Your task to perform on an android device: turn off translation in the chrome app Image 0: 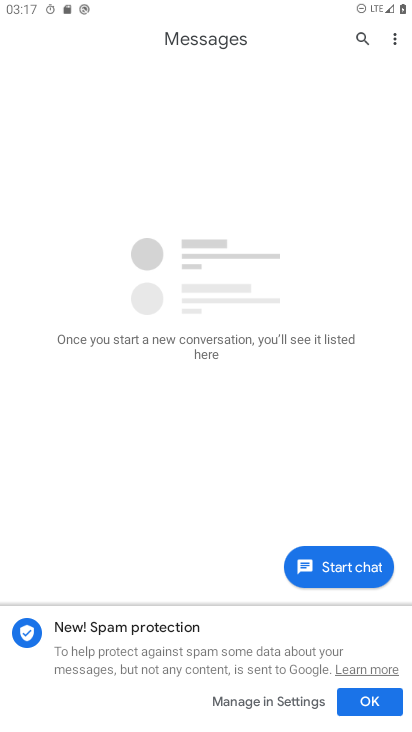
Step 0: press home button
Your task to perform on an android device: turn off translation in the chrome app Image 1: 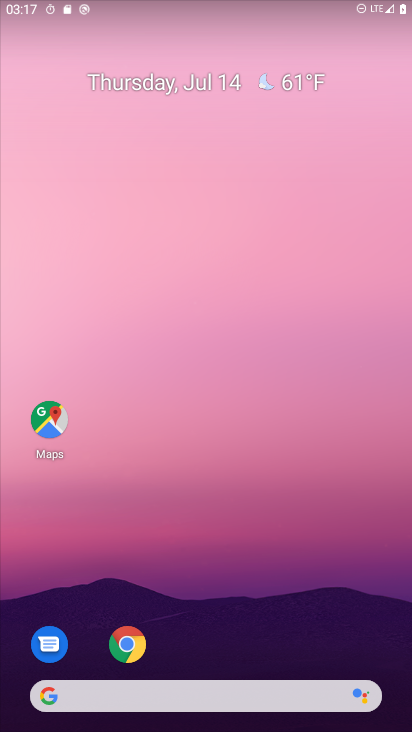
Step 1: drag from (282, 606) to (257, 29)
Your task to perform on an android device: turn off translation in the chrome app Image 2: 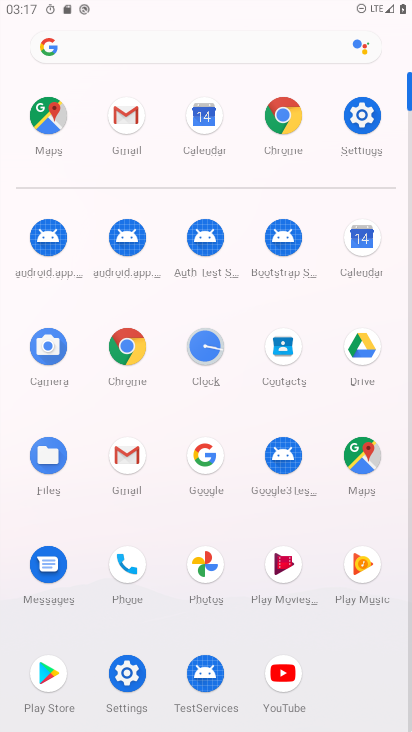
Step 2: click (282, 115)
Your task to perform on an android device: turn off translation in the chrome app Image 3: 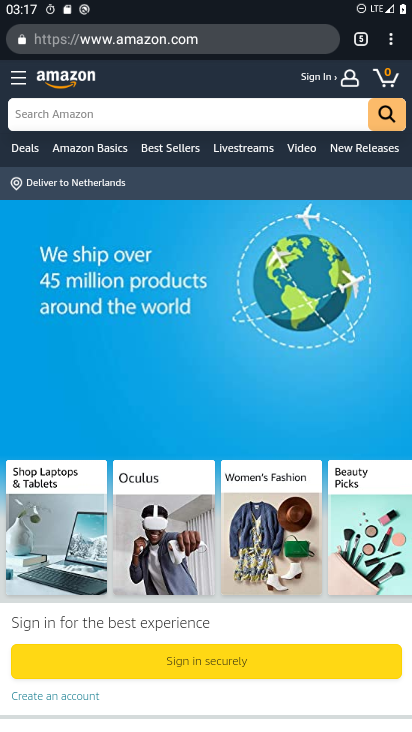
Step 3: drag from (389, 31) to (261, 473)
Your task to perform on an android device: turn off translation in the chrome app Image 4: 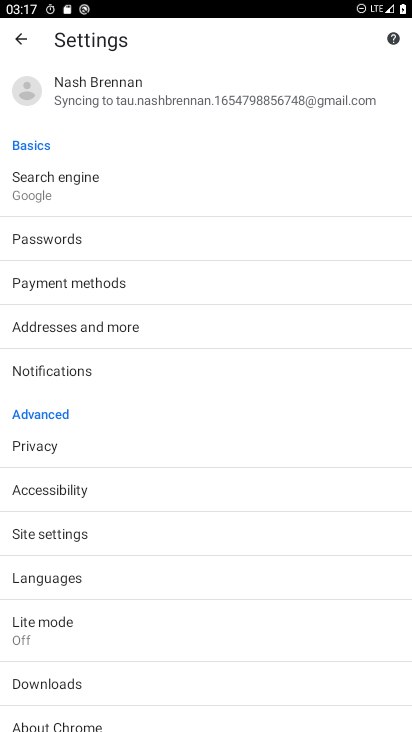
Step 4: click (63, 575)
Your task to perform on an android device: turn off translation in the chrome app Image 5: 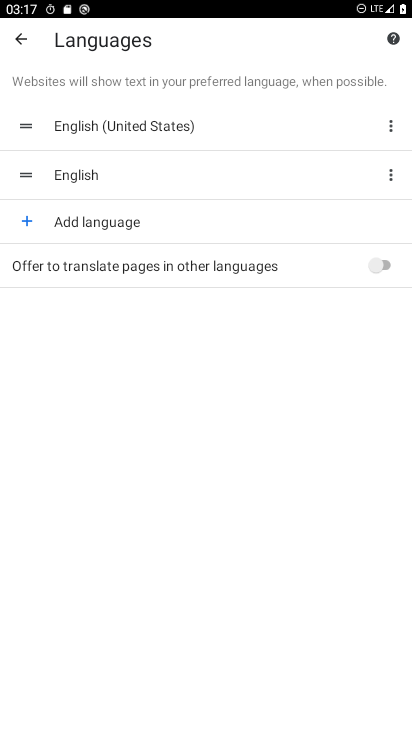
Step 5: task complete